Your task to perform on an android device: Open Maps and search for coffee Image 0: 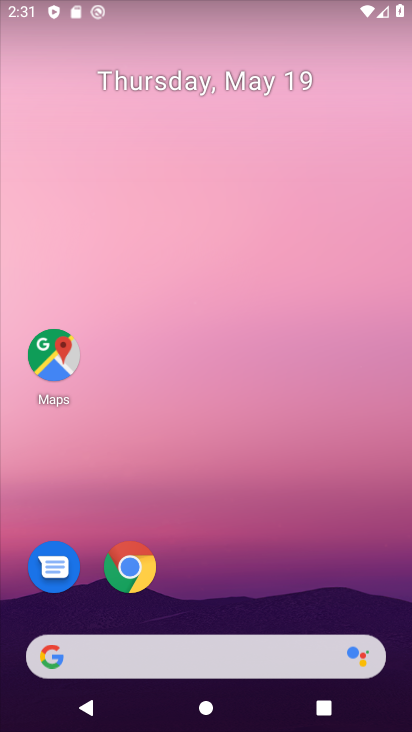
Step 0: drag from (226, 720) to (231, 205)
Your task to perform on an android device: Open Maps and search for coffee Image 1: 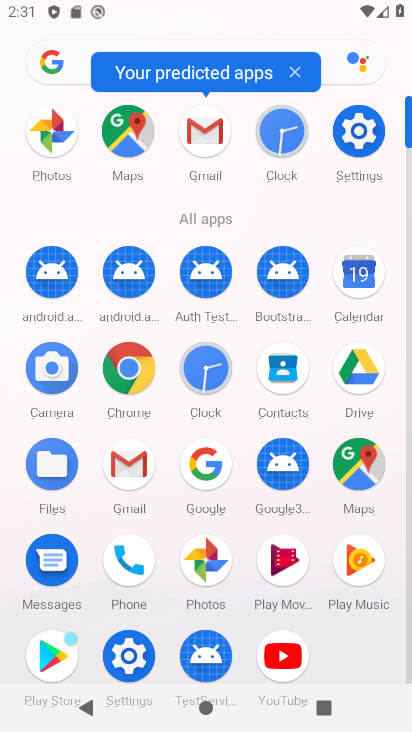
Step 1: click (347, 457)
Your task to perform on an android device: Open Maps and search for coffee Image 2: 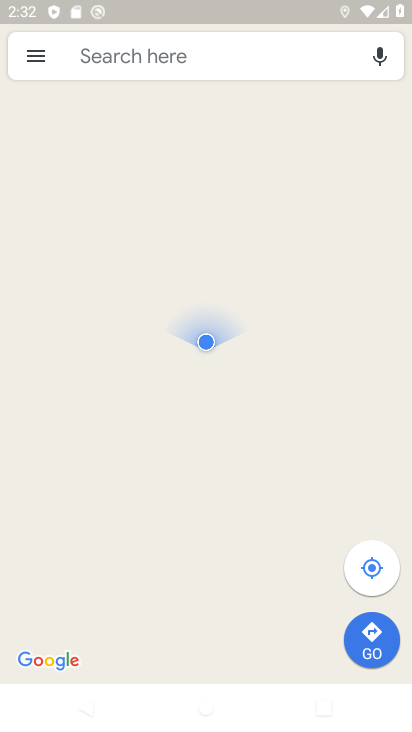
Step 2: click (224, 51)
Your task to perform on an android device: Open Maps and search for coffee Image 3: 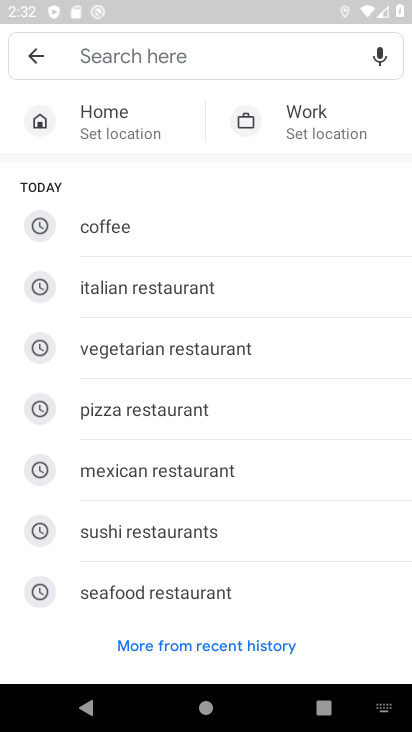
Step 3: type "Coffee"
Your task to perform on an android device: Open Maps and search for coffee Image 4: 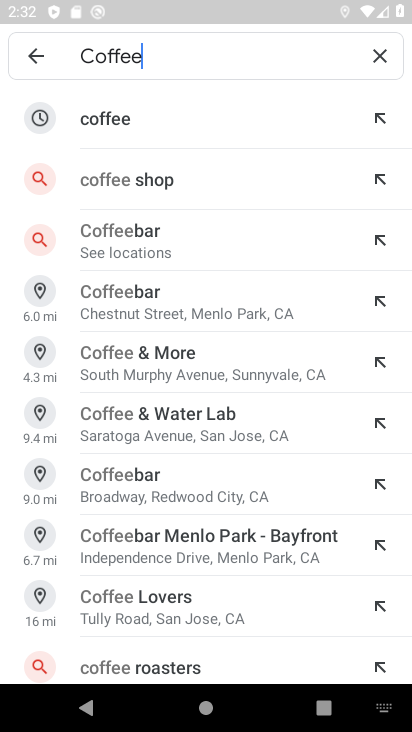
Step 4: click (113, 114)
Your task to perform on an android device: Open Maps and search for coffee Image 5: 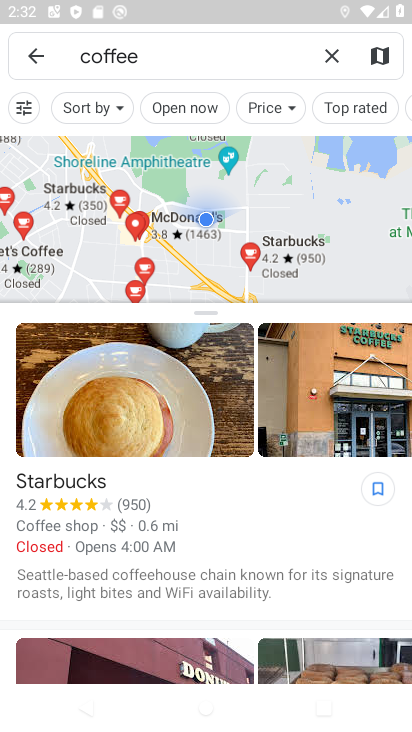
Step 5: task complete